Your task to perform on an android device: Open Android settings Image 0: 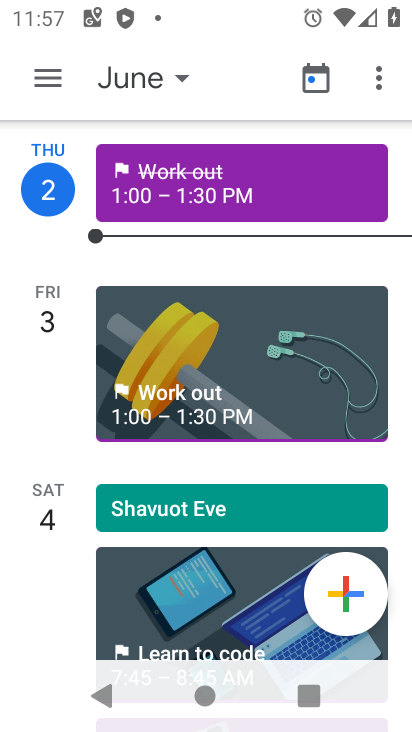
Step 0: press home button
Your task to perform on an android device: Open Android settings Image 1: 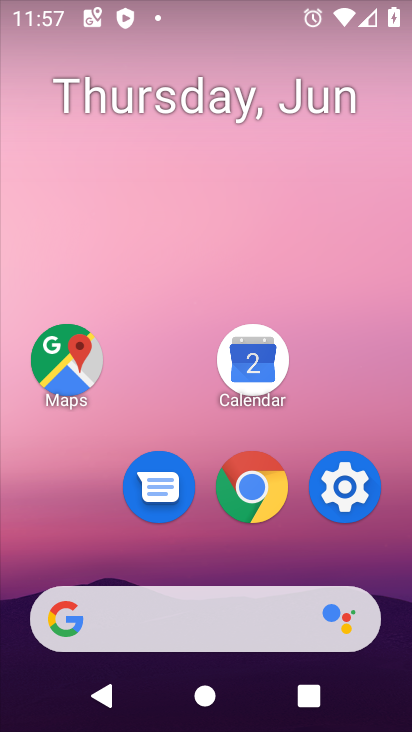
Step 1: drag from (288, 626) to (306, 0)
Your task to perform on an android device: Open Android settings Image 2: 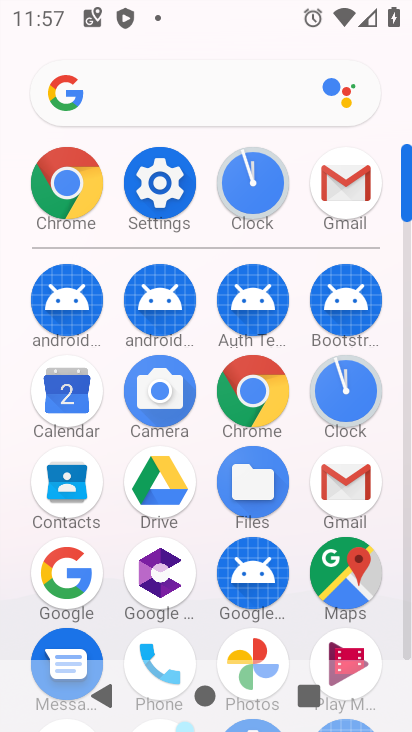
Step 2: click (165, 185)
Your task to perform on an android device: Open Android settings Image 3: 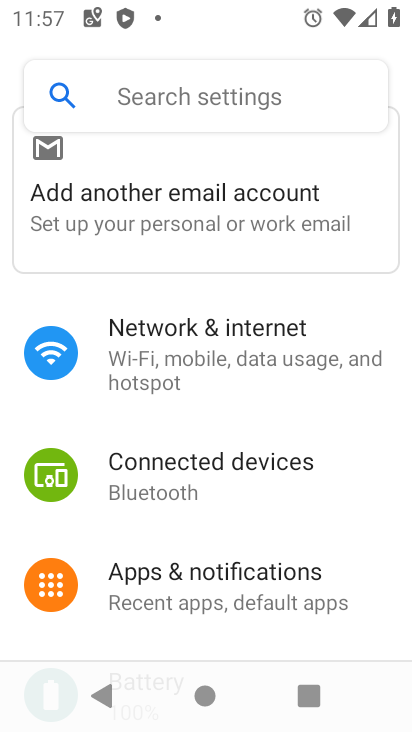
Step 3: click (157, 97)
Your task to perform on an android device: Open Android settings Image 4: 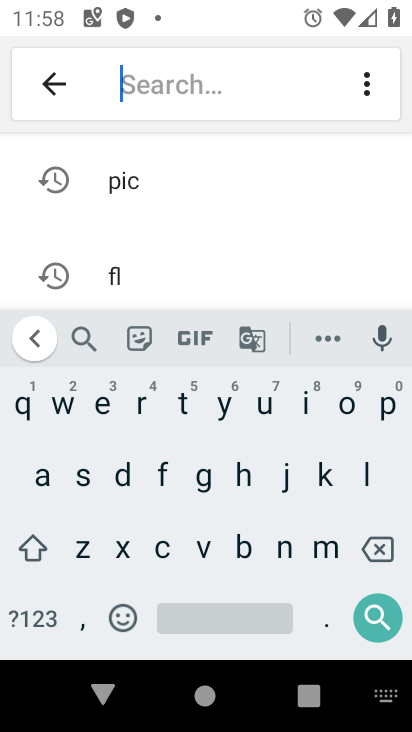
Step 4: click (38, 470)
Your task to perform on an android device: Open Android settings Image 5: 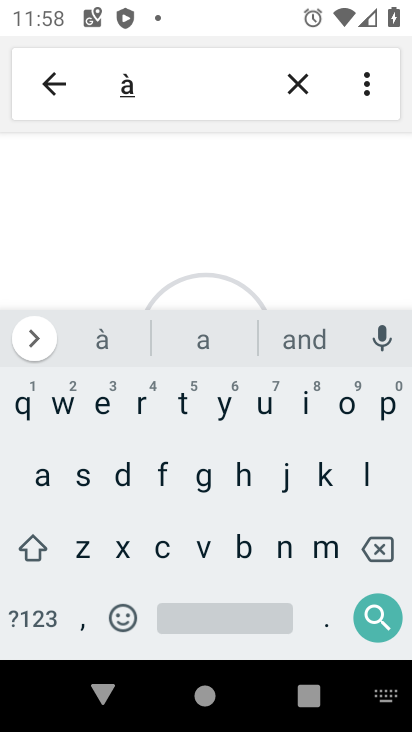
Step 5: click (283, 550)
Your task to perform on an android device: Open Android settings Image 6: 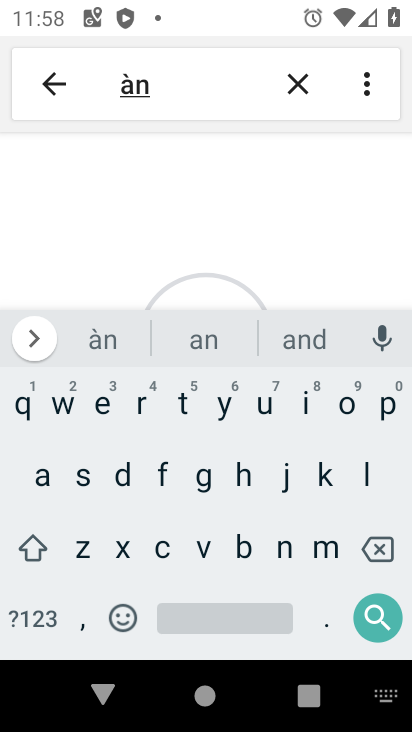
Step 6: click (296, 74)
Your task to perform on an android device: Open Android settings Image 7: 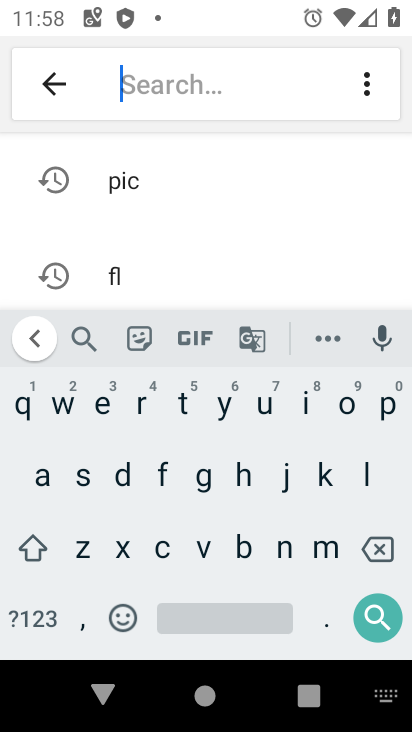
Step 7: click (37, 468)
Your task to perform on an android device: Open Android settings Image 8: 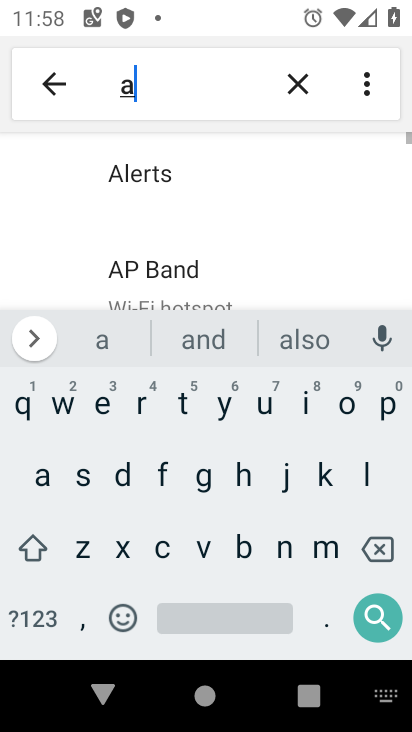
Step 8: click (284, 546)
Your task to perform on an android device: Open Android settings Image 9: 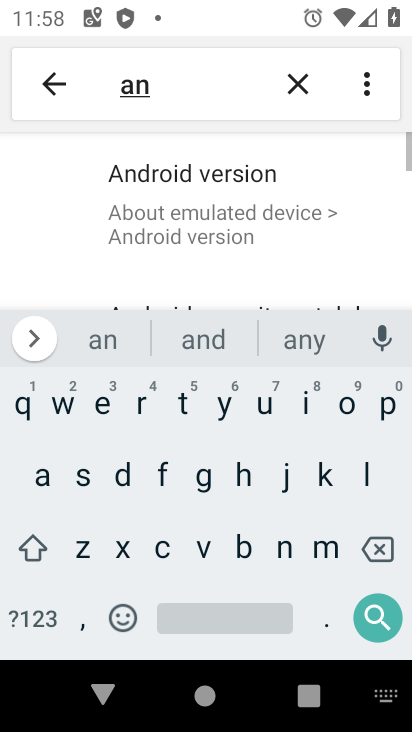
Step 9: click (226, 193)
Your task to perform on an android device: Open Android settings Image 10: 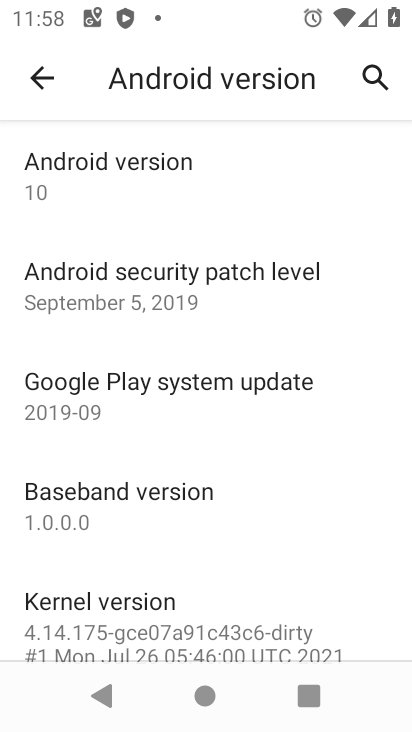
Step 10: task complete